Your task to perform on an android device: change notifications settings Image 0: 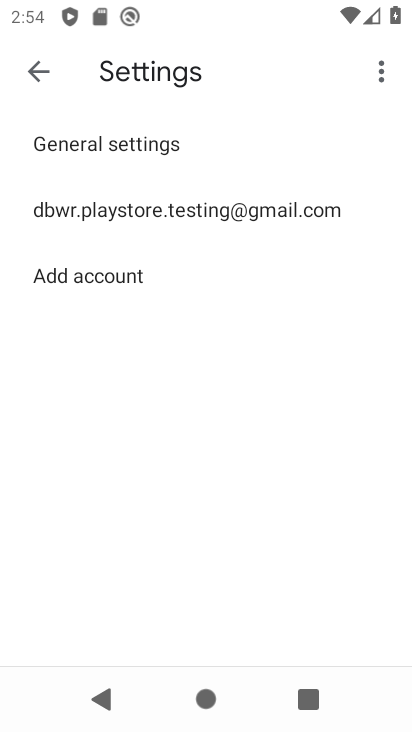
Step 0: press home button
Your task to perform on an android device: change notifications settings Image 1: 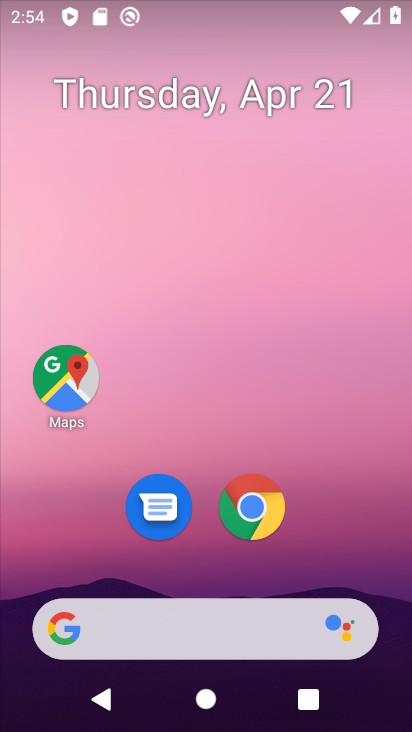
Step 1: drag from (309, 571) to (324, 129)
Your task to perform on an android device: change notifications settings Image 2: 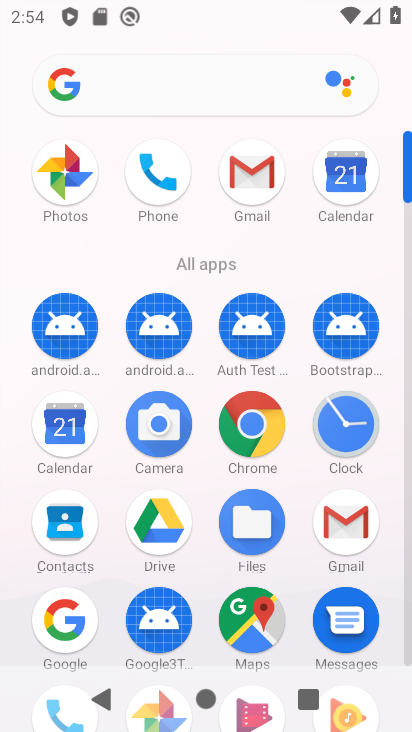
Step 2: drag from (195, 657) to (227, 248)
Your task to perform on an android device: change notifications settings Image 3: 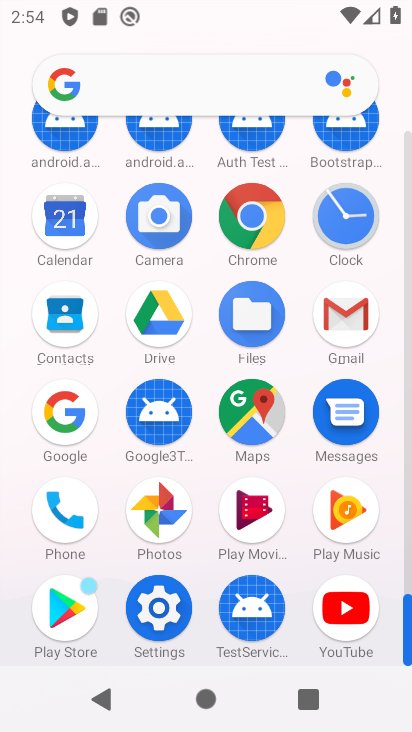
Step 3: click (159, 592)
Your task to perform on an android device: change notifications settings Image 4: 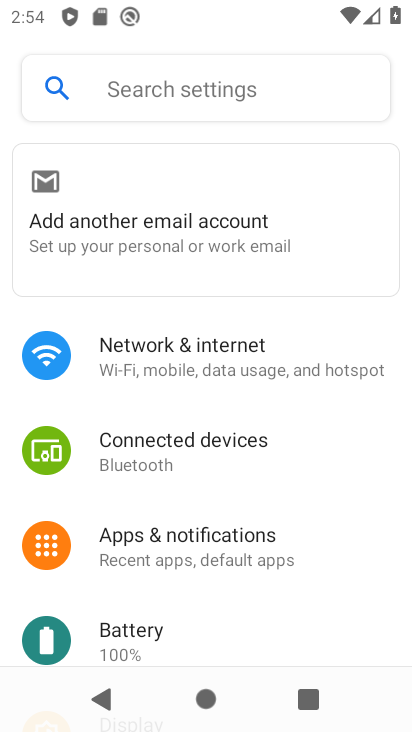
Step 4: click (199, 551)
Your task to perform on an android device: change notifications settings Image 5: 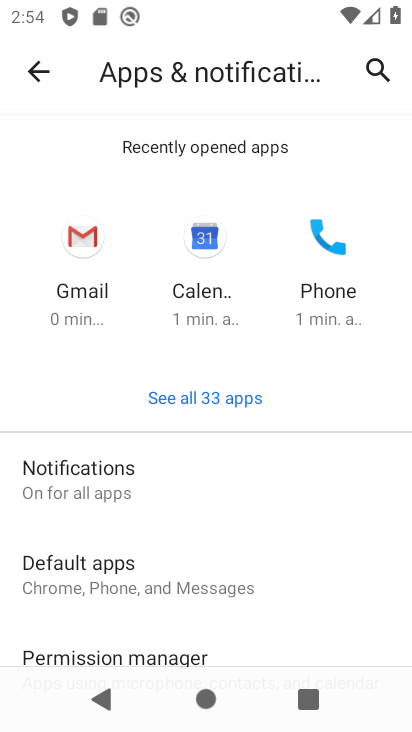
Step 5: click (125, 480)
Your task to perform on an android device: change notifications settings Image 6: 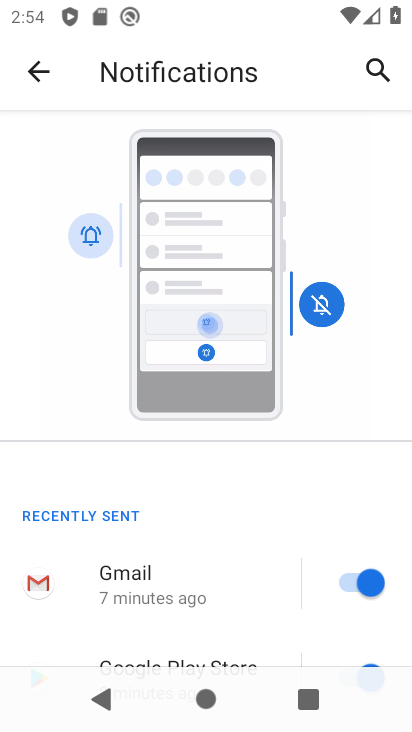
Step 6: click (368, 575)
Your task to perform on an android device: change notifications settings Image 7: 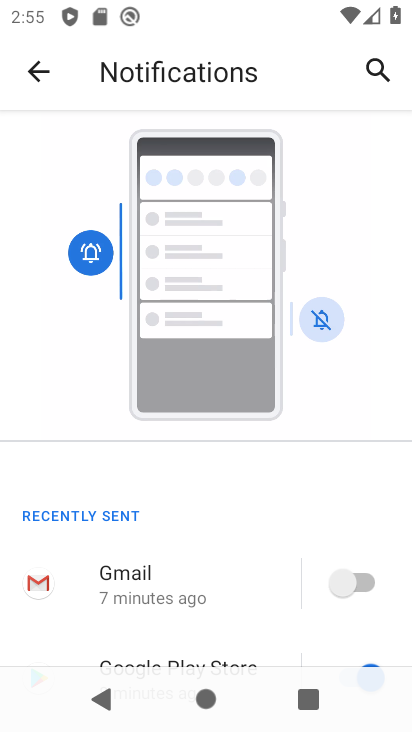
Step 7: task complete